Your task to perform on an android device: set an alarm Image 0: 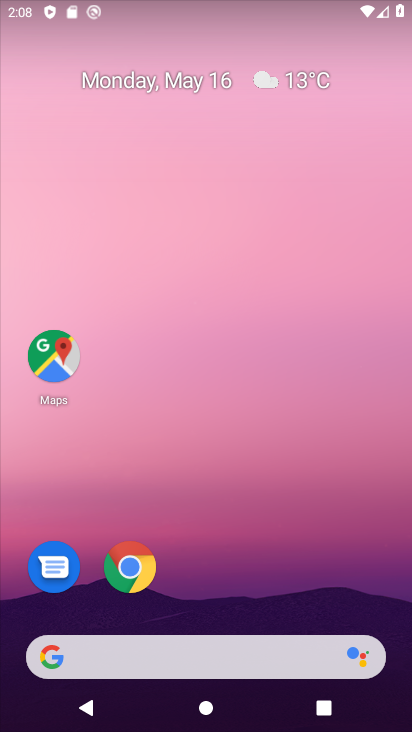
Step 0: drag from (316, 553) to (350, 29)
Your task to perform on an android device: set an alarm Image 1: 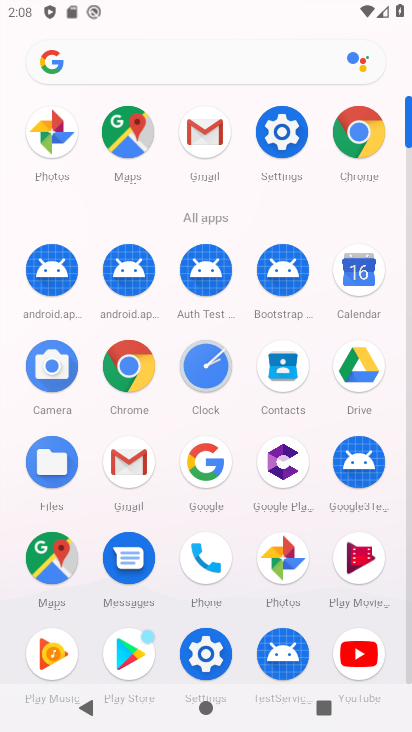
Step 1: click (221, 379)
Your task to perform on an android device: set an alarm Image 2: 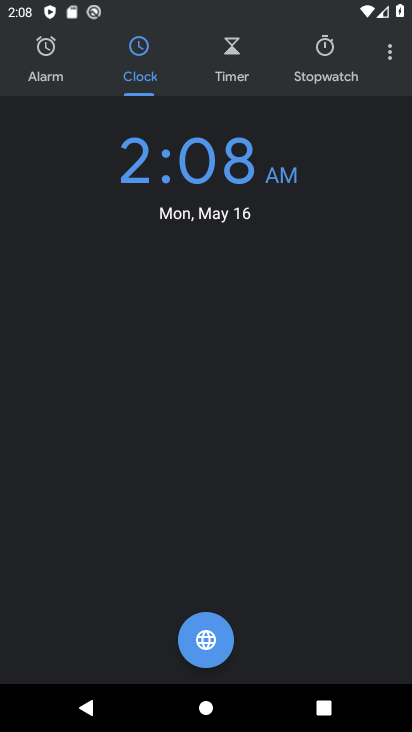
Step 2: click (44, 81)
Your task to perform on an android device: set an alarm Image 3: 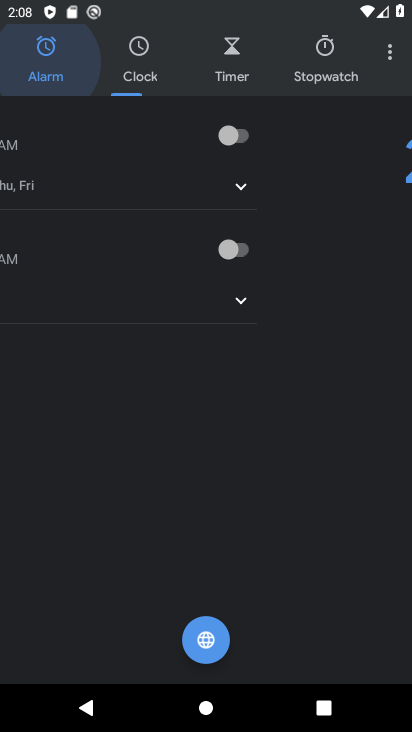
Step 3: click (44, 39)
Your task to perform on an android device: set an alarm Image 4: 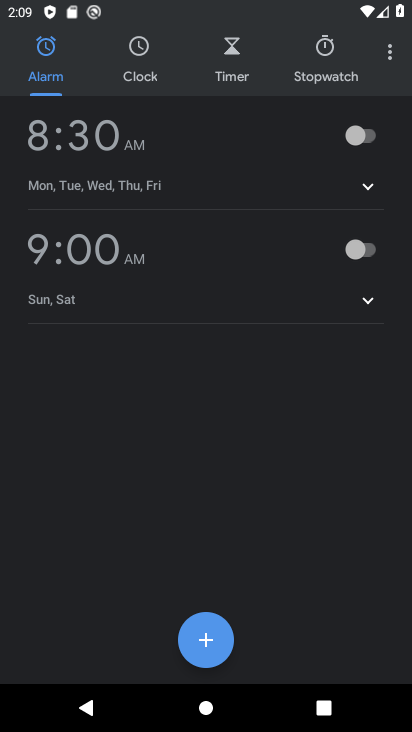
Step 4: click (44, 57)
Your task to perform on an android device: set an alarm Image 5: 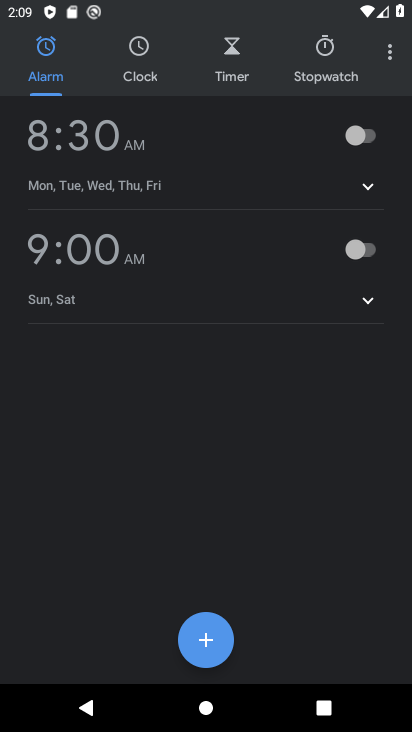
Step 5: click (216, 646)
Your task to perform on an android device: set an alarm Image 6: 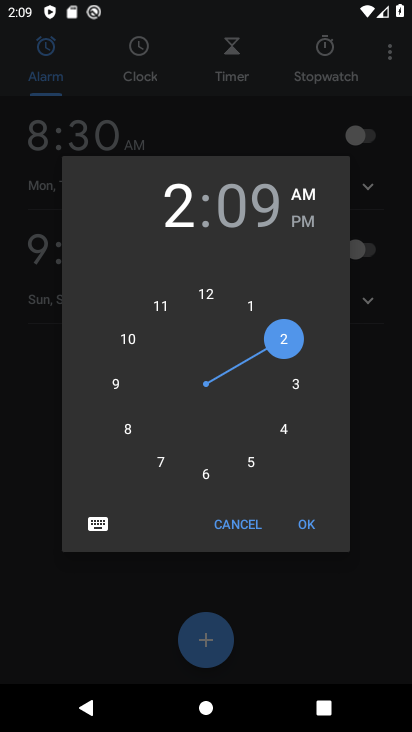
Step 6: click (197, 485)
Your task to perform on an android device: set an alarm Image 7: 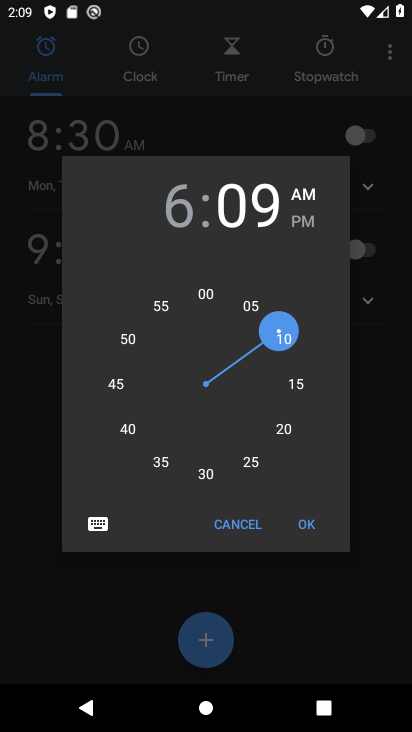
Step 7: click (202, 476)
Your task to perform on an android device: set an alarm Image 8: 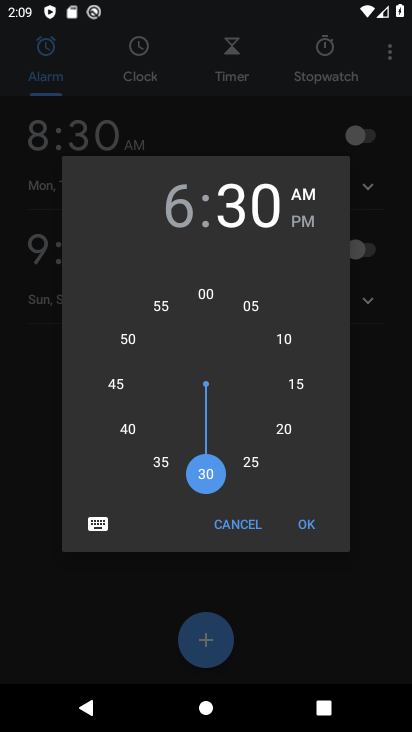
Step 8: click (202, 476)
Your task to perform on an android device: set an alarm Image 9: 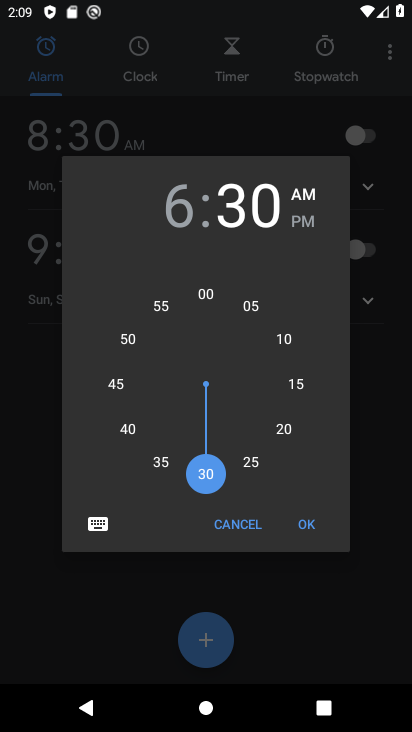
Step 9: click (302, 528)
Your task to perform on an android device: set an alarm Image 10: 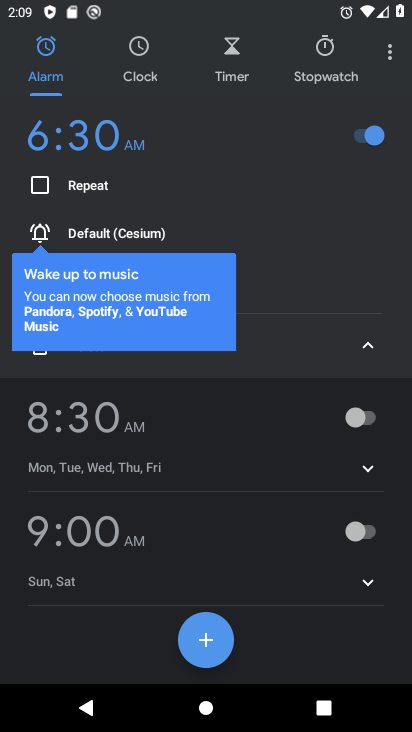
Step 10: task complete